Your task to perform on an android device: set the stopwatch Image 0: 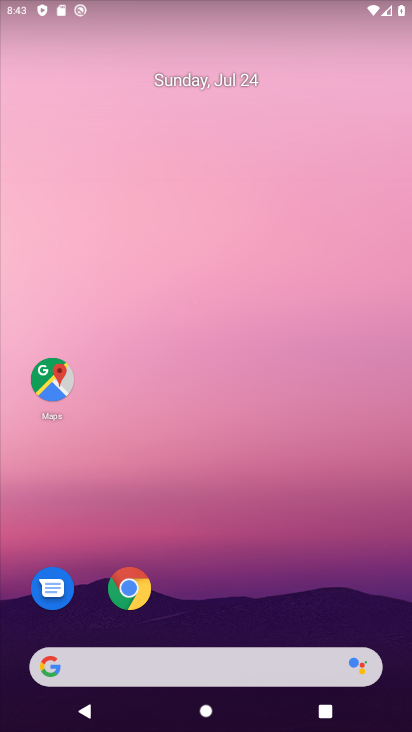
Step 0: drag from (392, 695) to (325, 53)
Your task to perform on an android device: set the stopwatch Image 1: 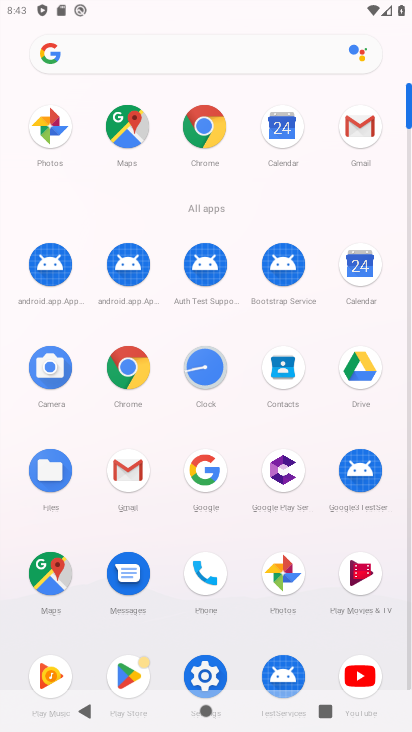
Step 1: click (204, 367)
Your task to perform on an android device: set the stopwatch Image 2: 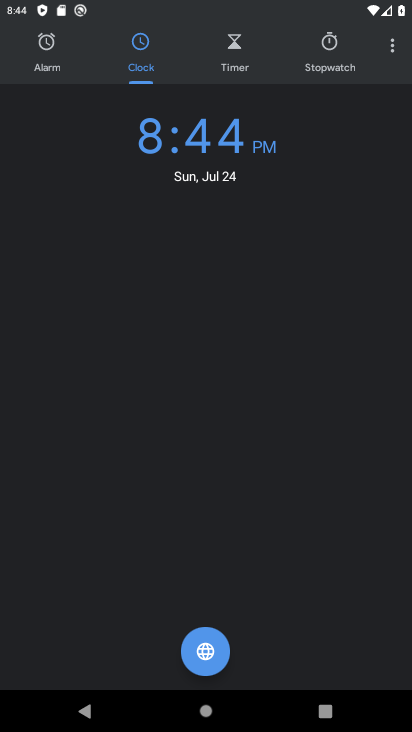
Step 2: click (314, 48)
Your task to perform on an android device: set the stopwatch Image 3: 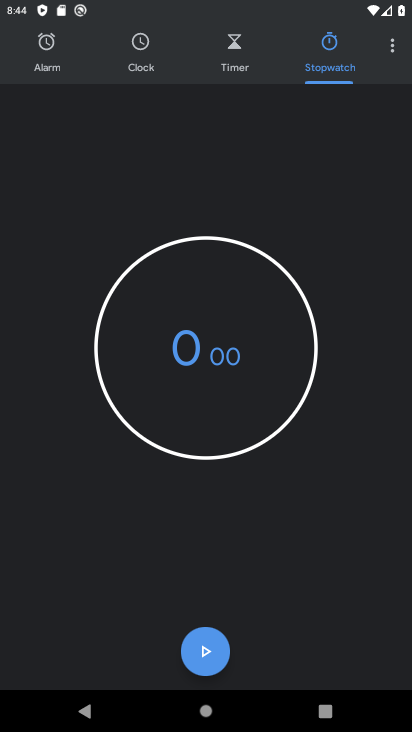
Step 3: click (213, 662)
Your task to perform on an android device: set the stopwatch Image 4: 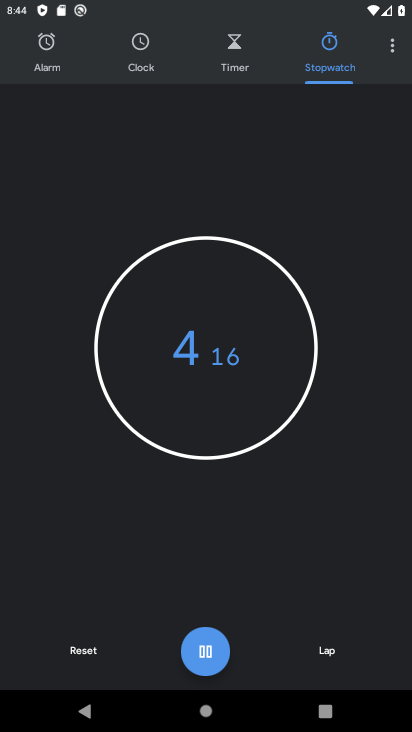
Step 4: task complete